Your task to perform on an android device: turn off smart reply in the gmail app Image 0: 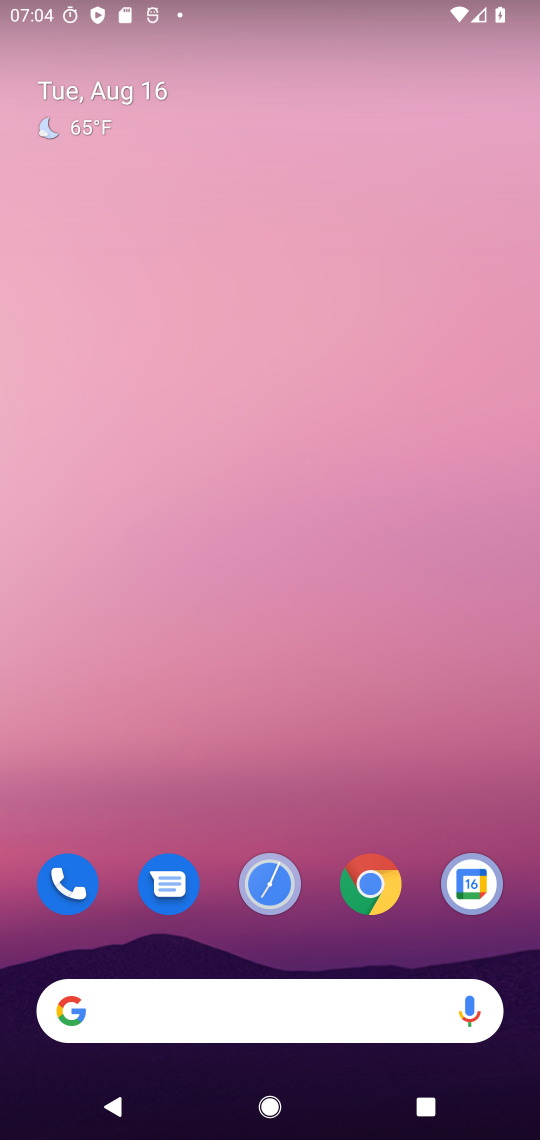
Step 0: press home button
Your task to perform on an android device: turn off smart reply in the gmail app Image 1: 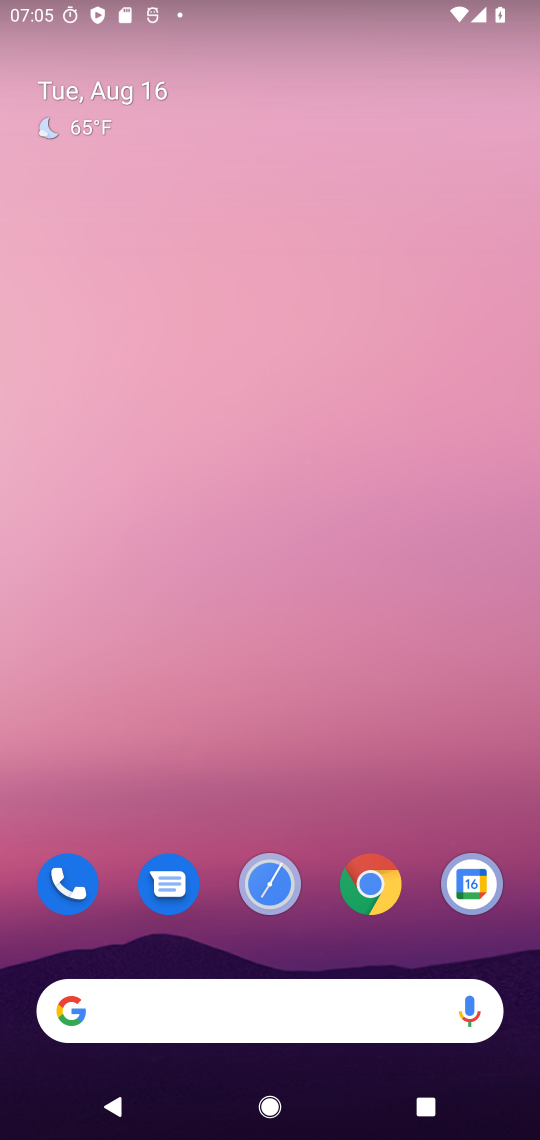
Step 1: press home button
Your task to perform on an android device: turn off smart reply in the gmail app Image 2: 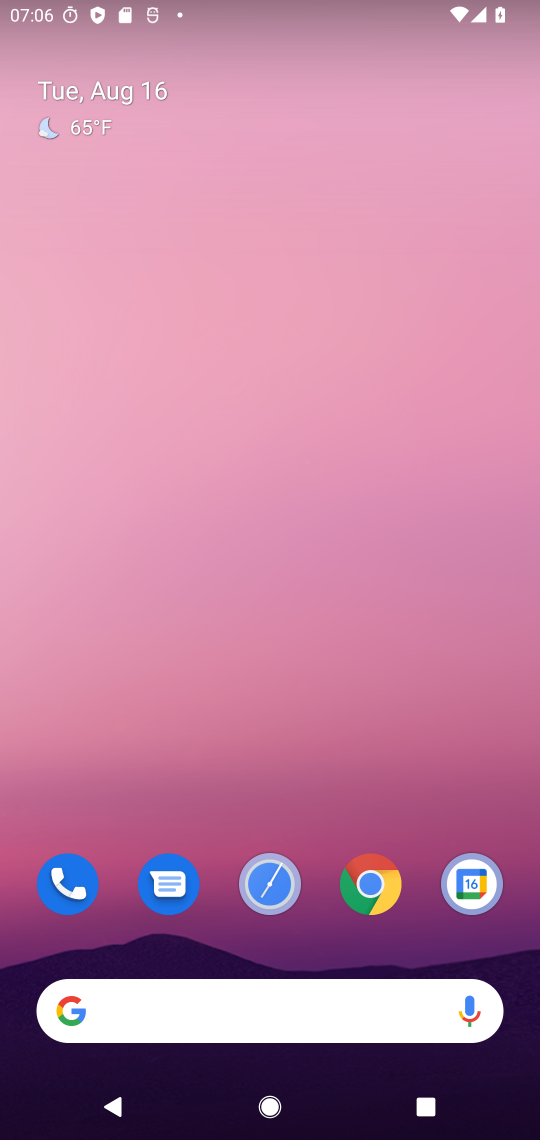
Step 2: drag from (352, 814) to (364, 134)
Your task to perform on an android device: turn off smart reply in the gmail app Image 3: 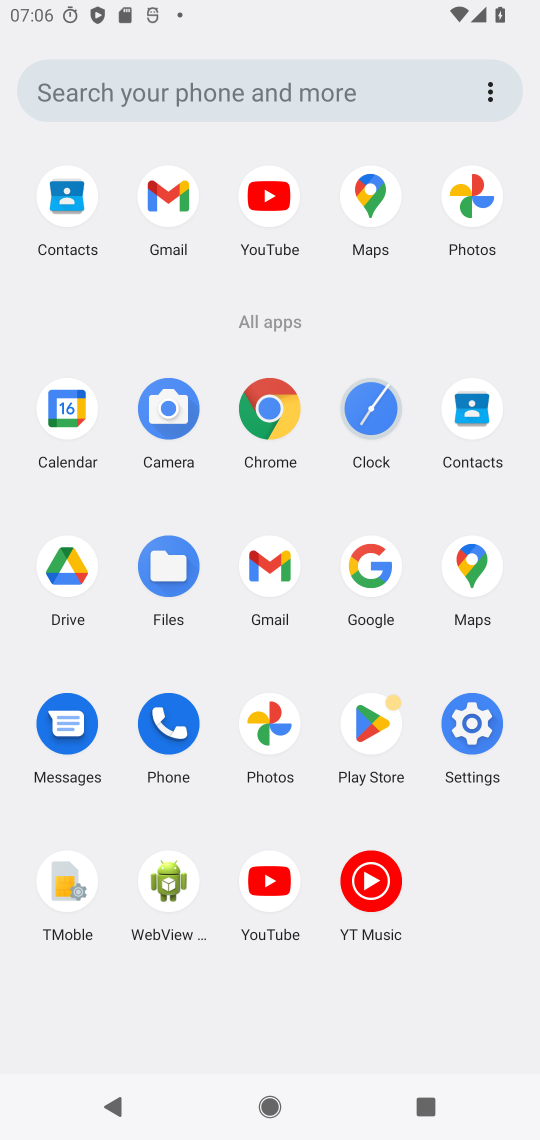
Step 3: click (169, 209)
Your task to perform on an android device: turn off smart reply in the gmail app Image 4: 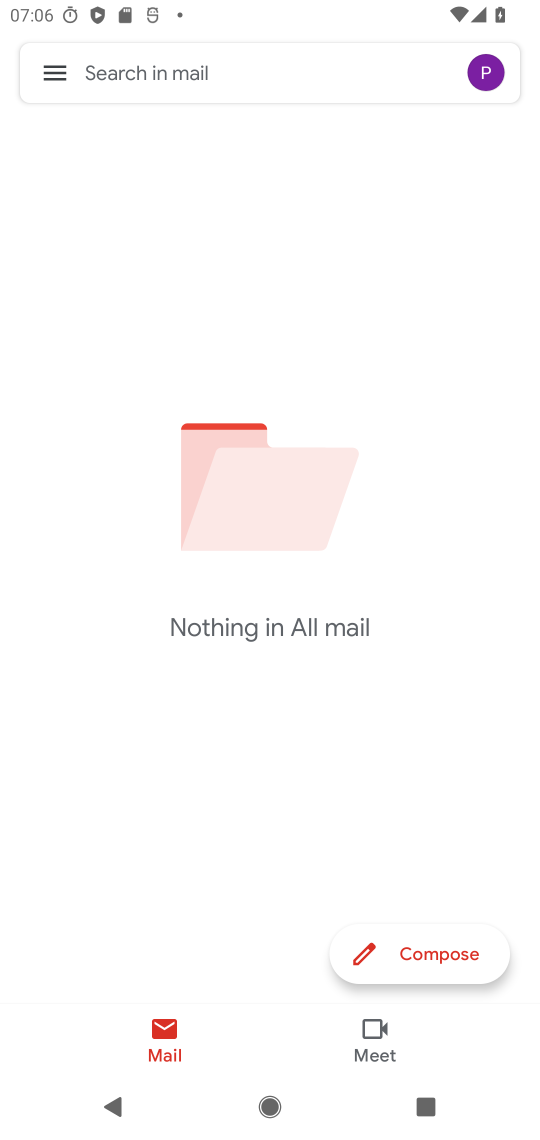
Step 4: click (55, 63)
Your task to perform on an android device: turn off smart reply in the gmail app Image 5: 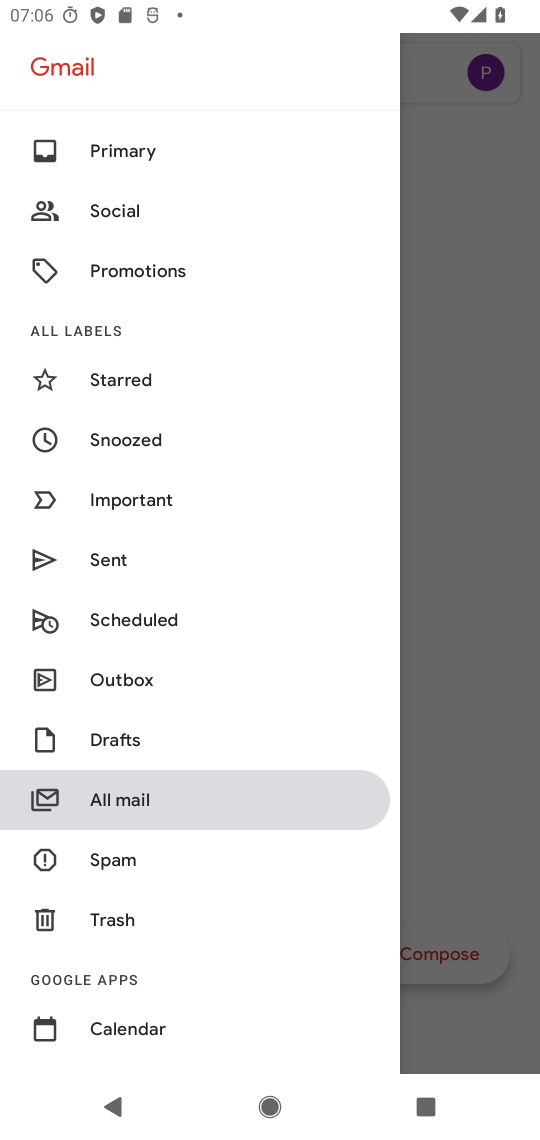
Step 5: drag from (150, 981) to (253, 346)
Your task to perform on an android device: turn off smart reply in the gmail app Image 6: 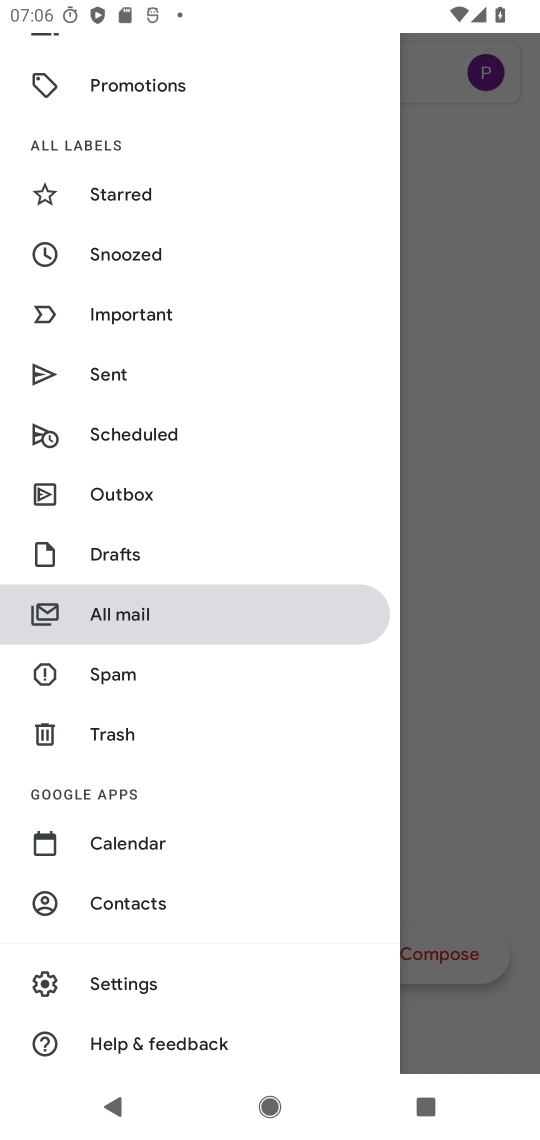
Step 6: click (97, 987)
Your task to perform on an android device: turn off smart reply in the gmail app Image 7: 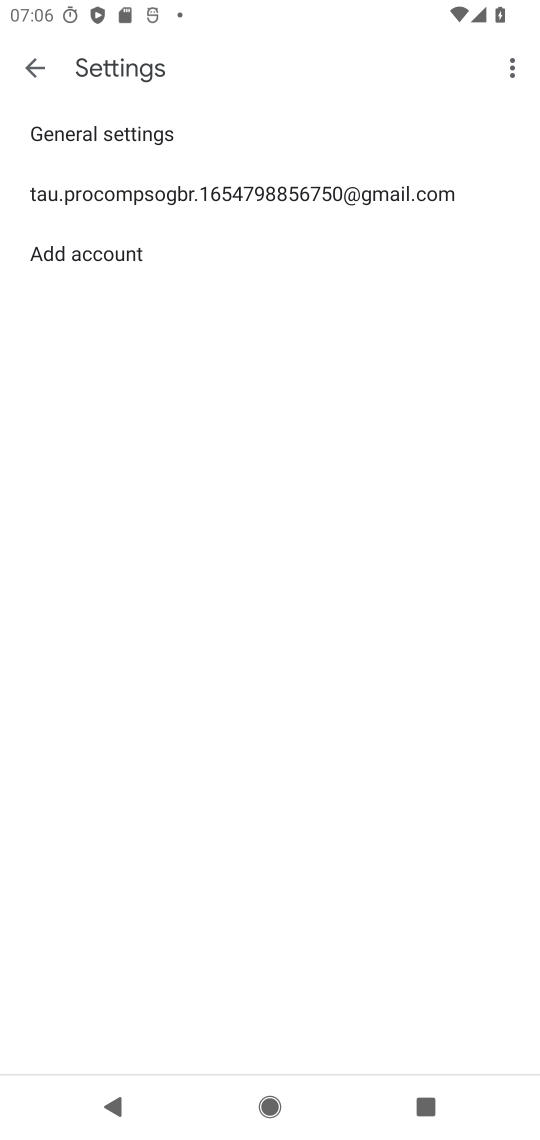
Step 7: click (133, 206)
Your task to perform on an android device: turn off smart reply in the gmail app Image 8: 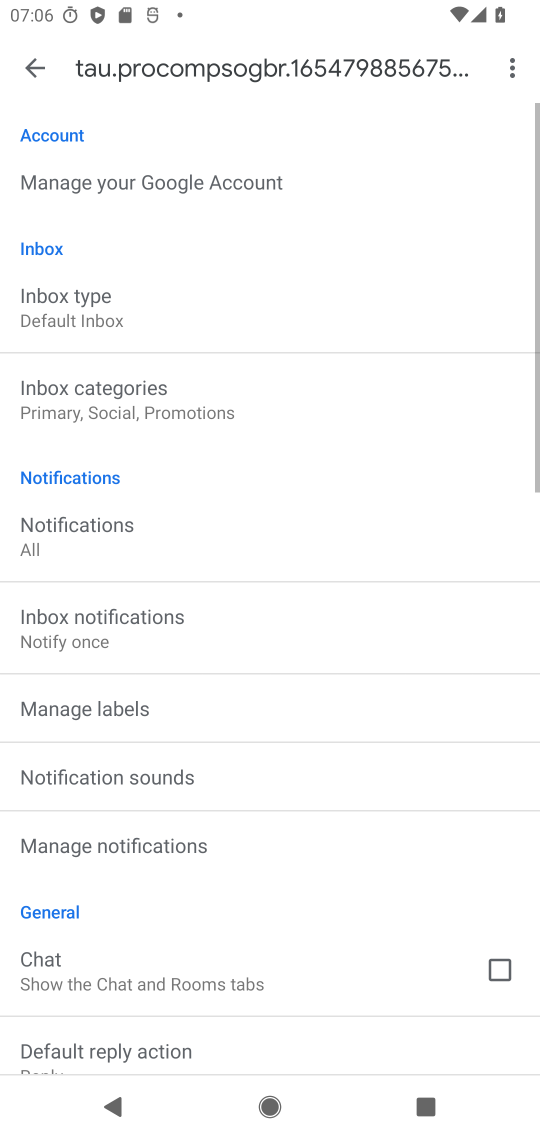
Step 8: drag from (163, 926) to (189, 164)
Your task to perform on an android device: turn off smart reply in the gmail app Image 9: 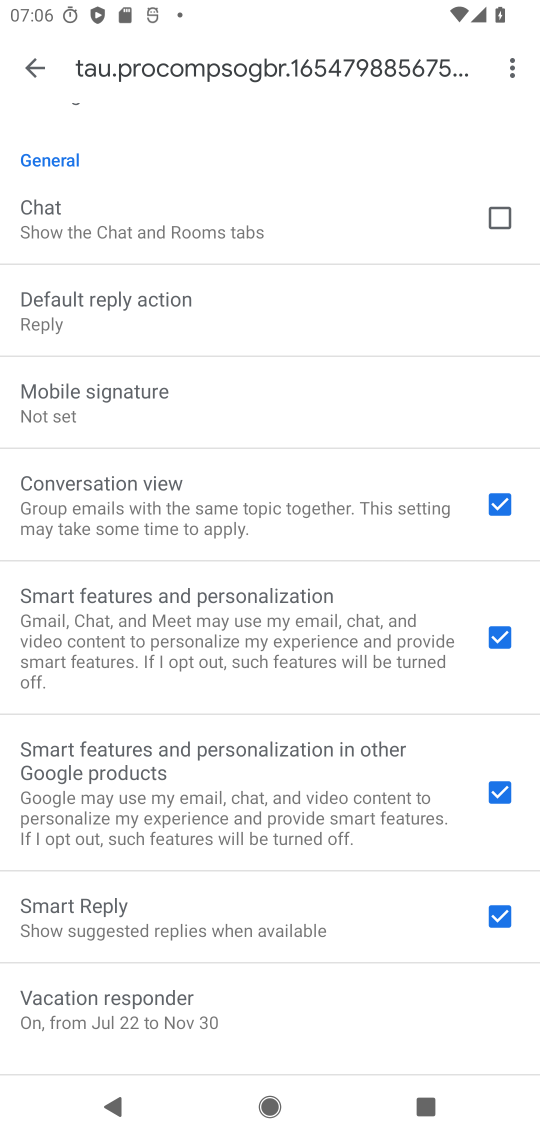
Step 9: click (490, 918)
Your task to perform on an android device: turn off smart reply in the gmail app Image 10: 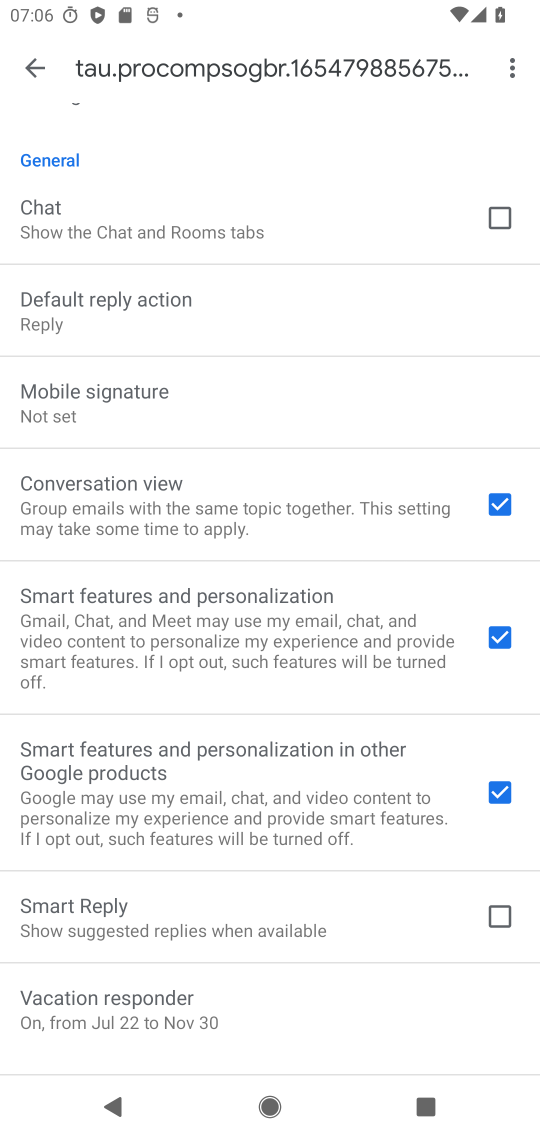
Step 10: task complete